Your task to perform on an android device: add a contact in the contacts app Image 0: 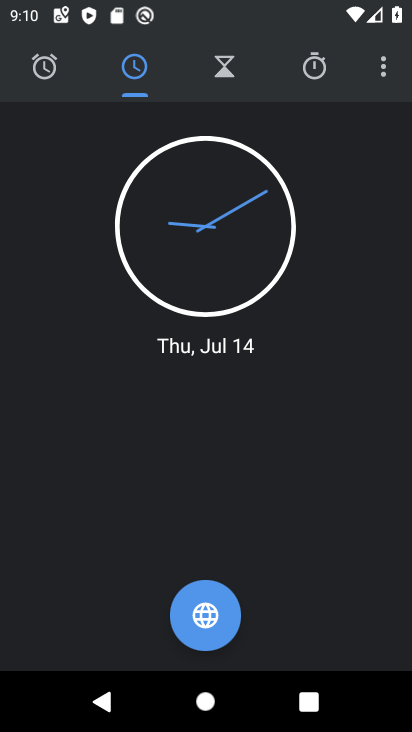
Step 0: press home button
Your task to perform on an android device: add a contact in the contacts app Image 1: 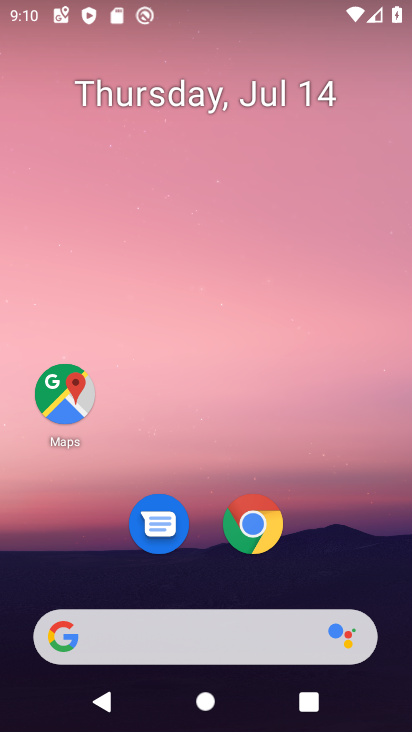
Step 1: drag from (334, 543) to (270, 19)
Your task to perform on an android device: add a contact in the contacts app Image 2: 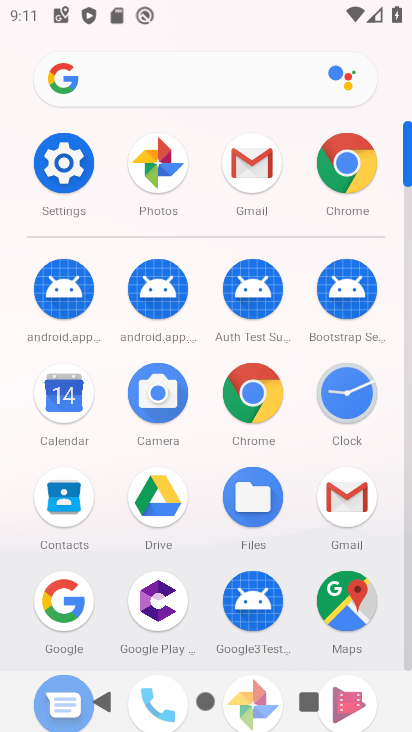
Step 2: click (63, 508)
Your task to perform on an android device: add a contact in the contacts app Image 3: 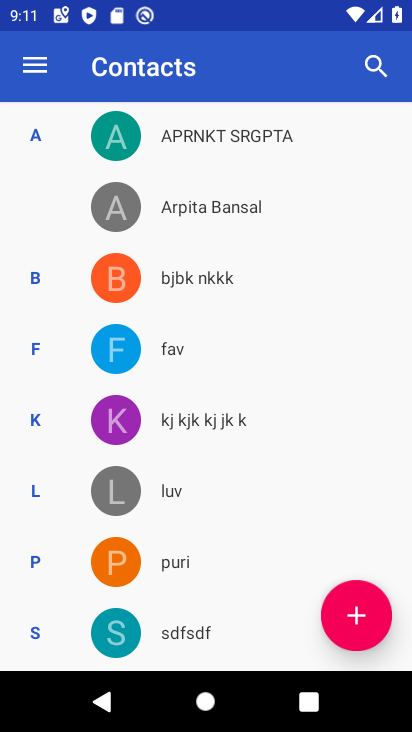
Step 3: drag from (243, 559) to (244, 177)
Your task to perform on an android device: add a contact in the contacts app Image 4: 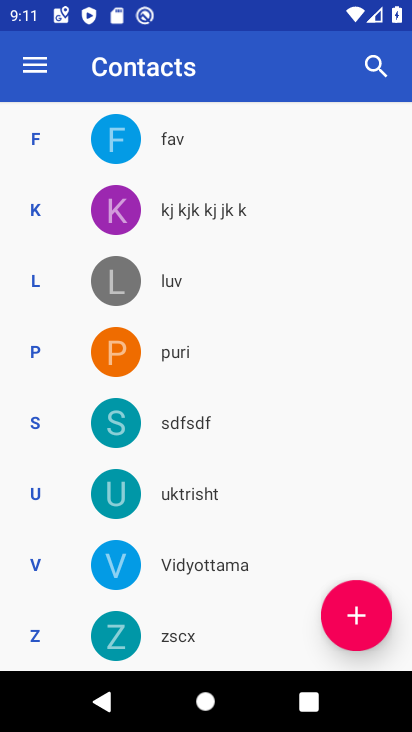
Step 4: click (348, 614)
Your task to perform on an android device: add a contact in the contacts app Image 5: 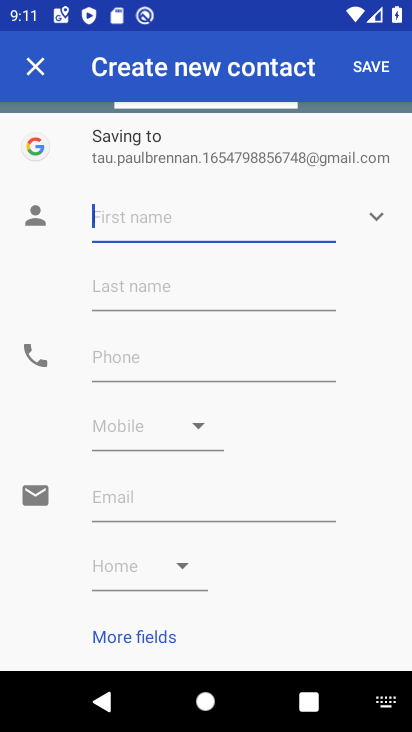
Step 5: type "Ahilyabai Holkar"
Your task to perform on an android device: add a contact in the contacts app Image 6: 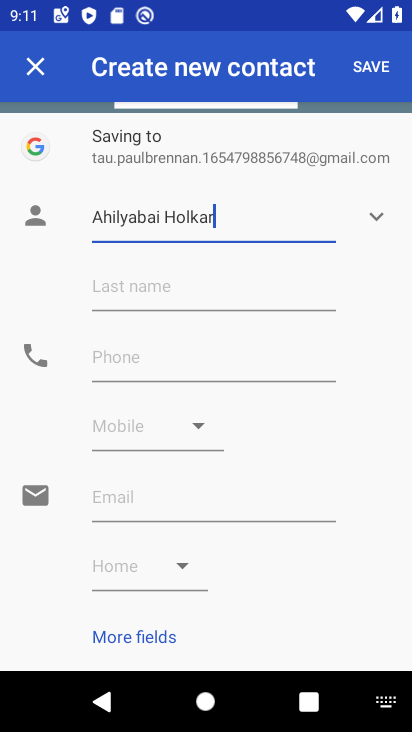
Step 6: click (207, 363)
Your task to perform on an android device: add a contact in the contacts app Image 7: 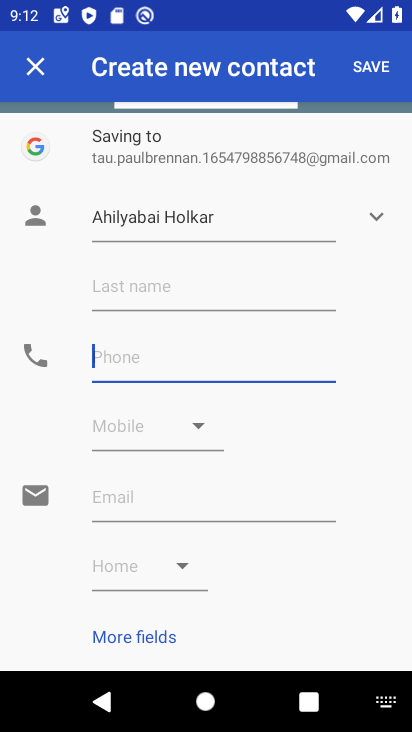
Step 7: type "91777555333111"
Your task to perform on an android device: add a contact in the contacts app Image 8: 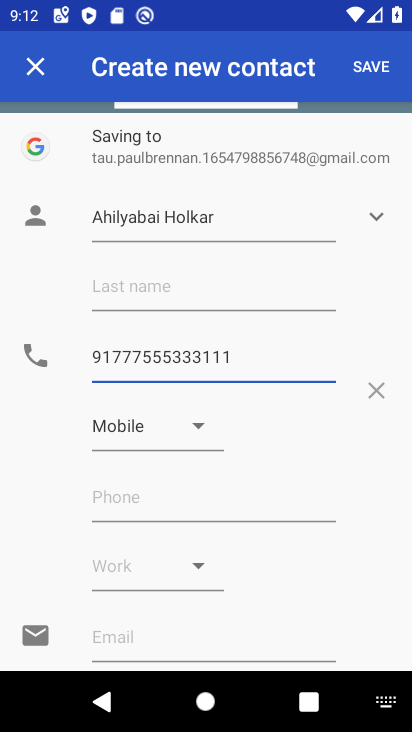
Step 8: click (374, 63)
Your task to perform on an android device: add a contact in the contacts app Image 9: 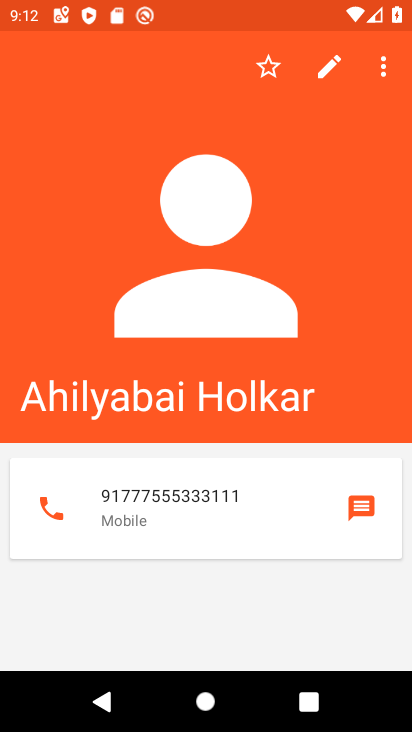
Step 9: task complete